Your task to perform on an android device: Go to notification settings Image 0: 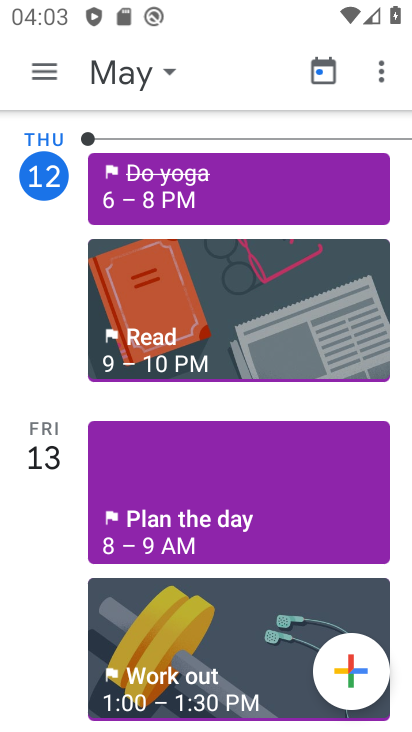
Step 0: press home button
Your task to perform on an android device: Go to notification settings Image 1: 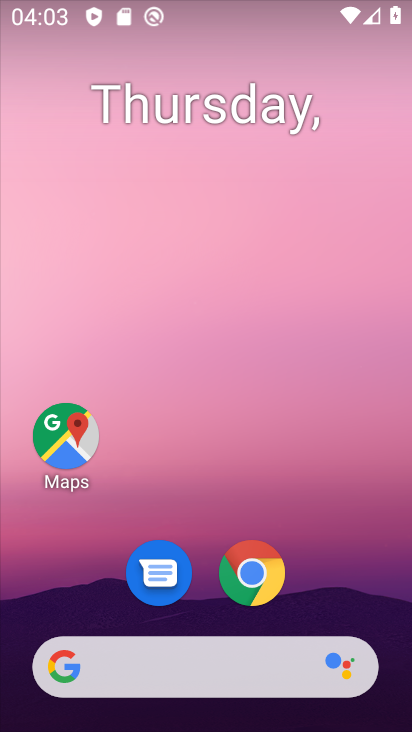
Step 1: drag from (384, 585) to (310, 130)
Your task to perform on an android device: Go to notification settings Image 2: 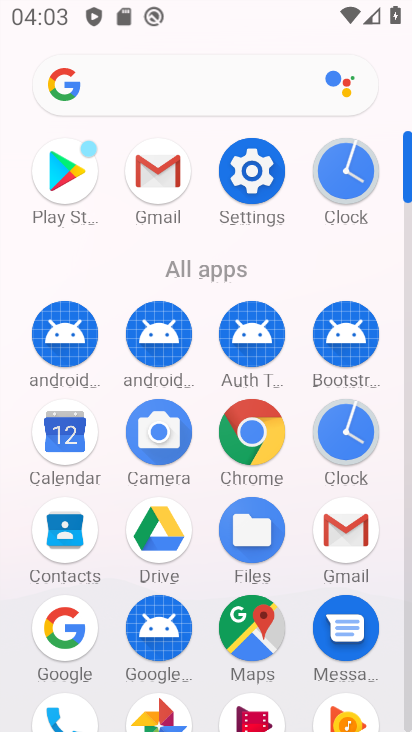
Step 2: click (407, 682)
Your task to perform on an android device: Go to notification settings Image 3: 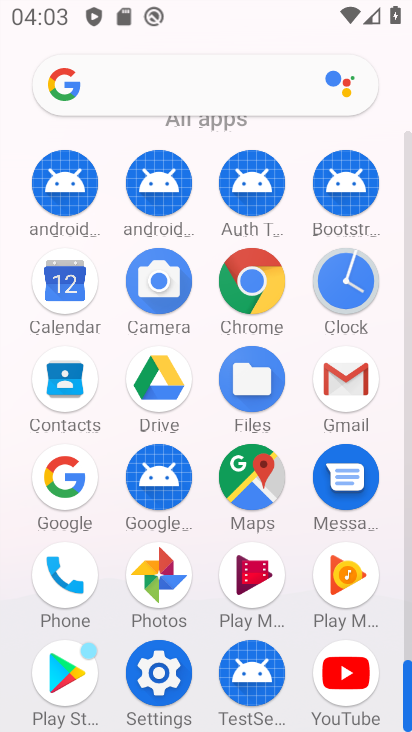
Step 3: click (160, 672)
Your task to perform on an android device: Go to notification settings Image 4: 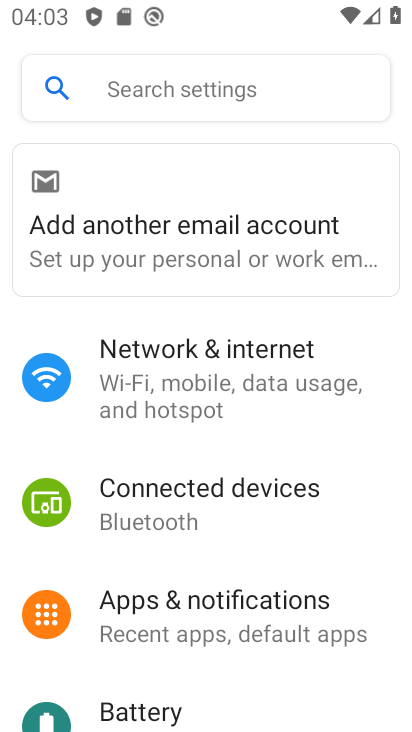
Step 4: click (202, 594)
Your task to perform on an android device: Go to notification settings Image 5: 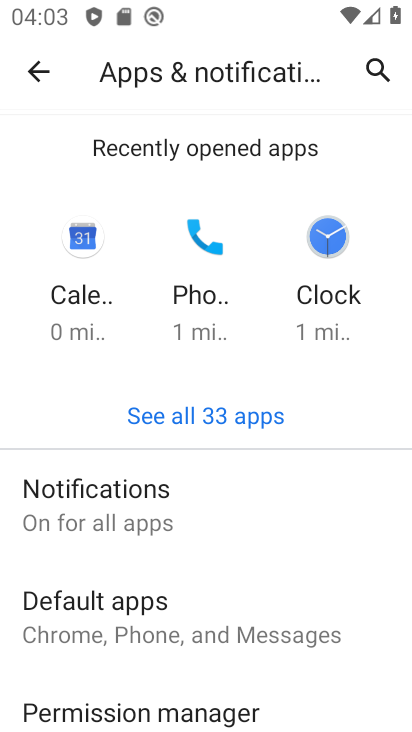
Step 5: drag from (318, 641) to (334, 415)
Your task to perform on an android device: Go to notification settings Image 6: 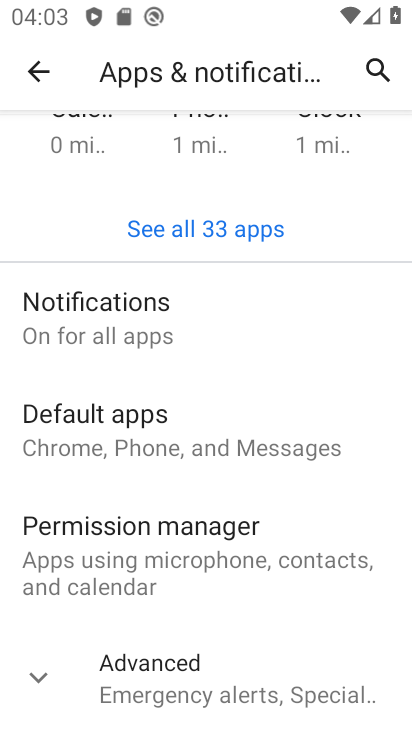
Step 6: click (90, 317)
Your task to perform on an android device: Go to notification settings Image 7: 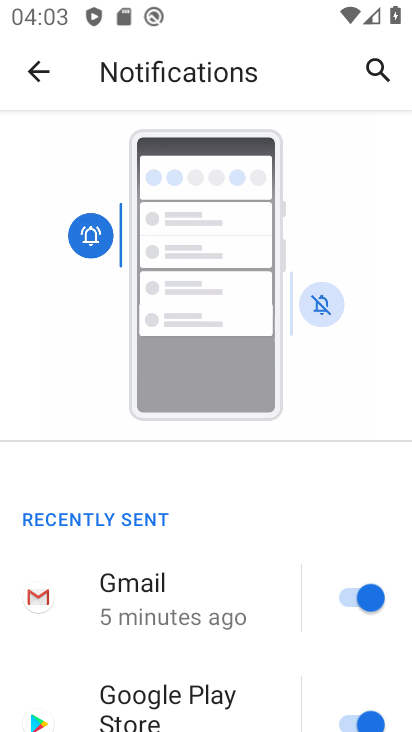
Step 7: task complete